Your task to perform on an android device: visit the assistant section in the google photos Image 0: 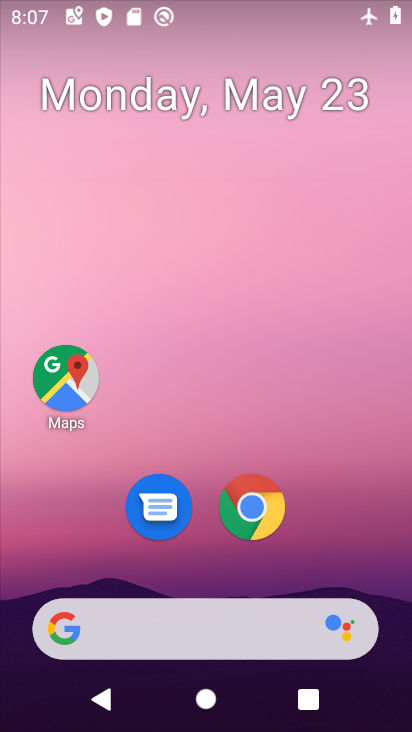
Step 0: drag from (348, 455) to (311, 208)
Your task to perform on an android device: visit the assistant section in the google photos Image 1: 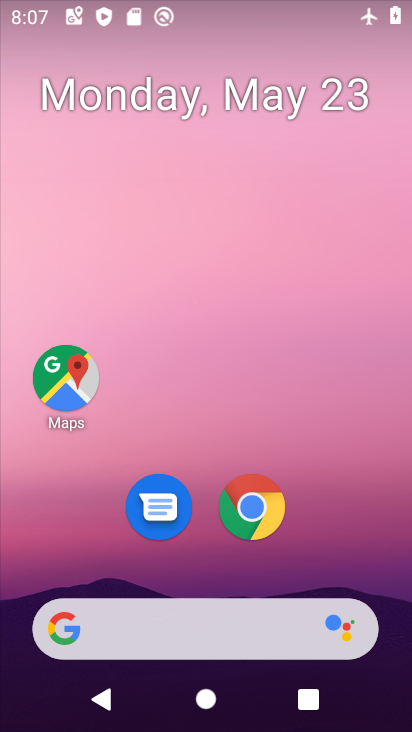
Step 1: drag from (293, 569) to (294, 113)
Your task to perform on an android device: visit the assistant section in the google photos Image 2: 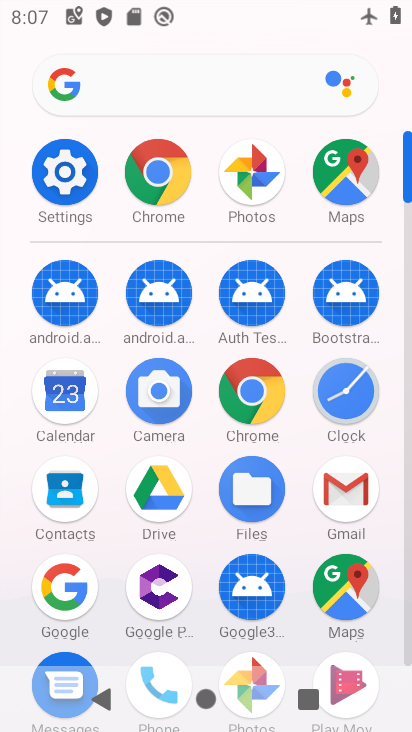
Step 2: drag from (245, 636) to (235, 281)
Your task to perform on an android device: visit the assistant section in the google photos Image 3: 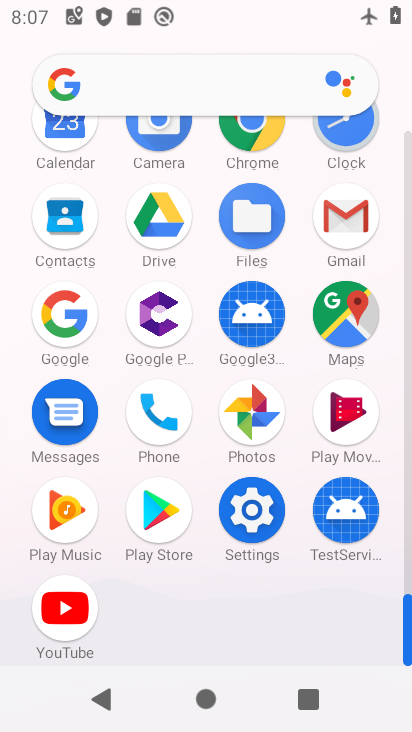
Step 3: click (262, 421)
Your task to perform on an android device: visit the assistant section in the google photos Image 4: 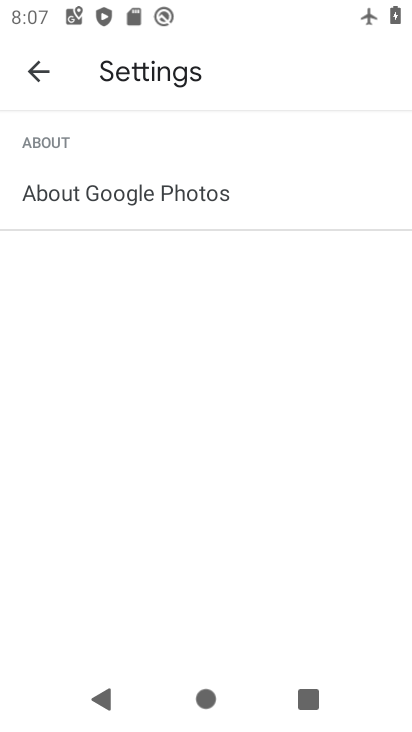
Step 4: click (31, 79)
Your task to perform on an android device: visit the assistant section in the google photos Image 5: 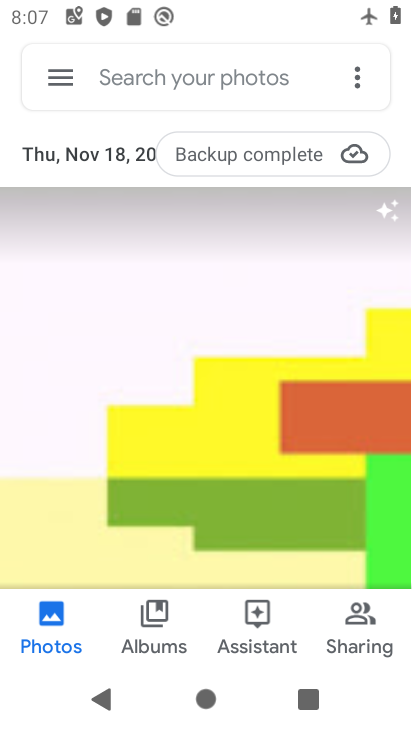
Step 5: click (255, 646)
Your task to perform on an android device: visit the assistant section in the google photos Image 6: 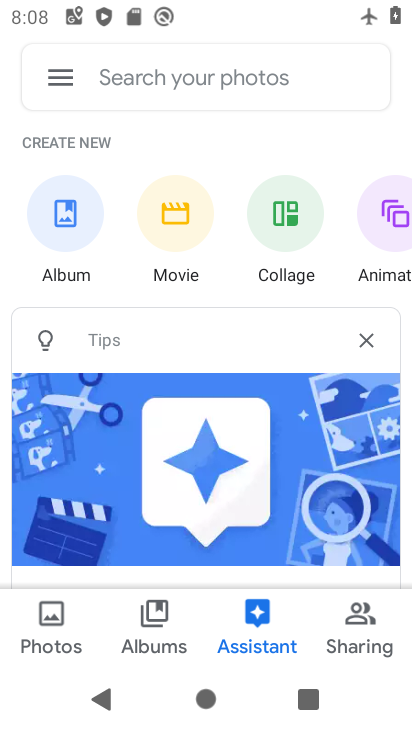
Step 6: task complete